Your task to perform on an android device: Search for seafood restaurants on Google Maps Image 0: 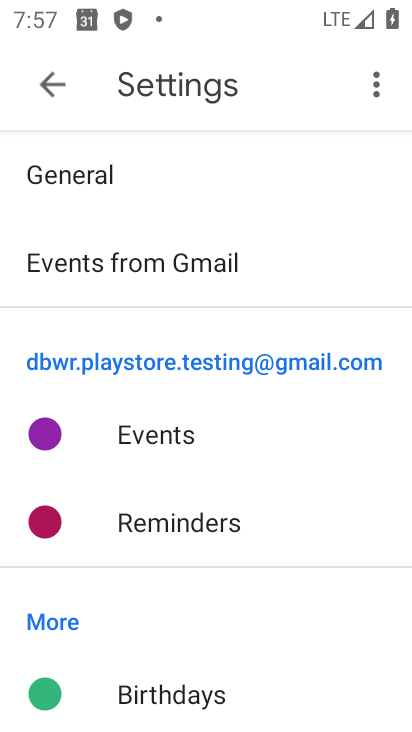
Step 0: press home button
Your task to perform on an android device: Search for seafood restaurants on Google Maps Image 1: 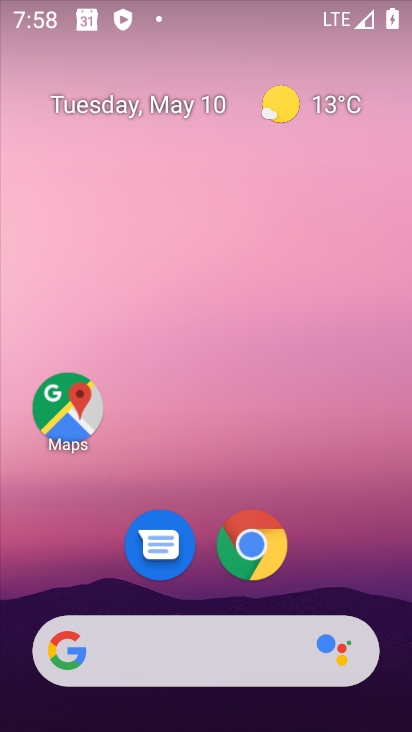
Step 1: click (67, 406)
Your task to perform on an android device: Search for seafood restaurants on Google Maps Image 2: 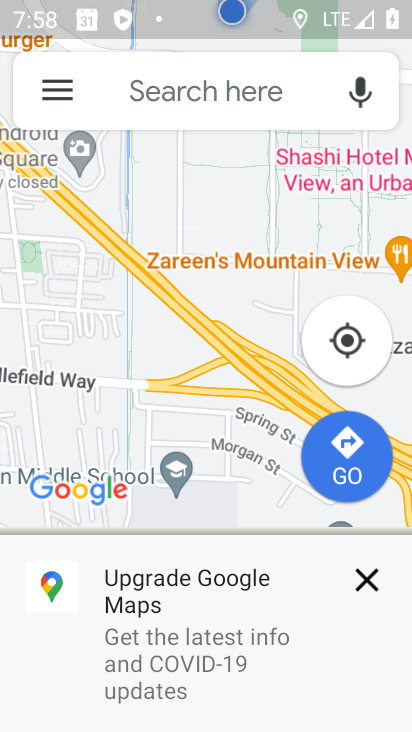
Step 2: click (152, 97)
Your task to perform on an android device: Search for seafood restaurants on Google Maps Image 3: 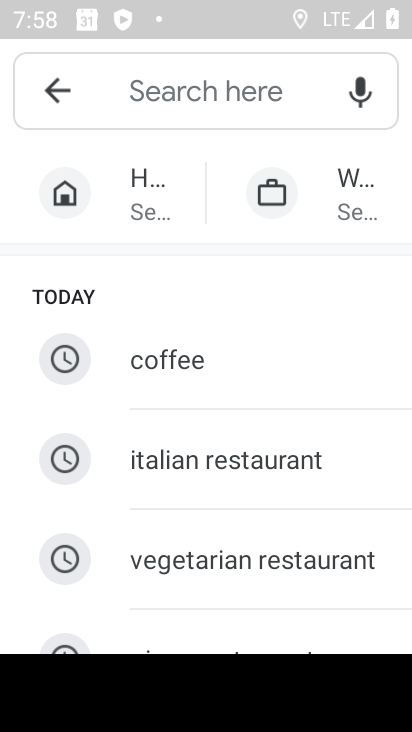
Step 3: drag from (228, 541) to (247, 163)
Your task to perform on an android device: Search for seafood restaurants on Google Maps Image 4: 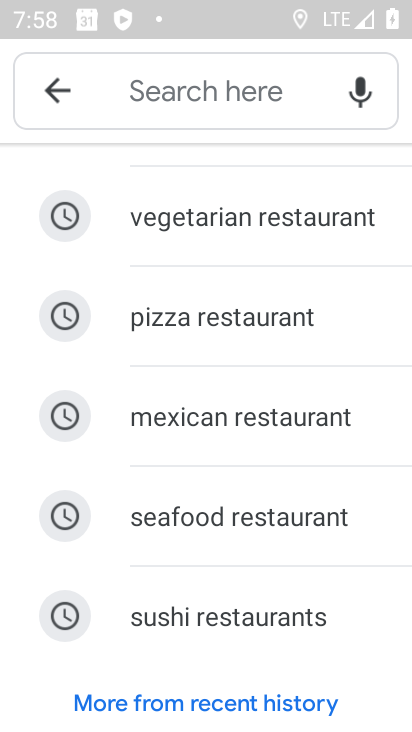
Step 4: click (201, 516)
Your task to perform on an android device: Search for seafood restaurants on Google Maps Image 5: 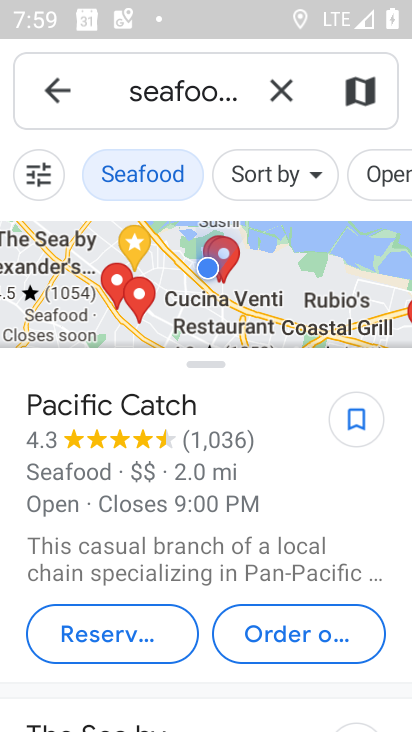
Step 5: task complete